Your task to perform on an android device: Open Google Image 0: 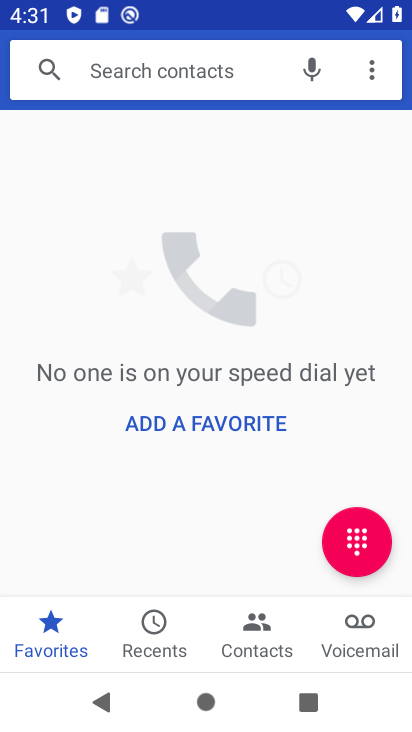
Step 0: press home button
Your task to perform on an android device: Open Google Image 1: 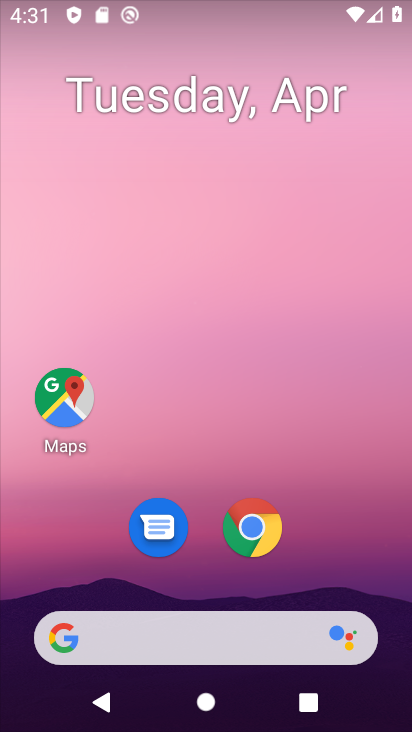
Step 1: drag from (211, 586) to (218, 131)
Your task to perform on an android device: Open Google Image 2: 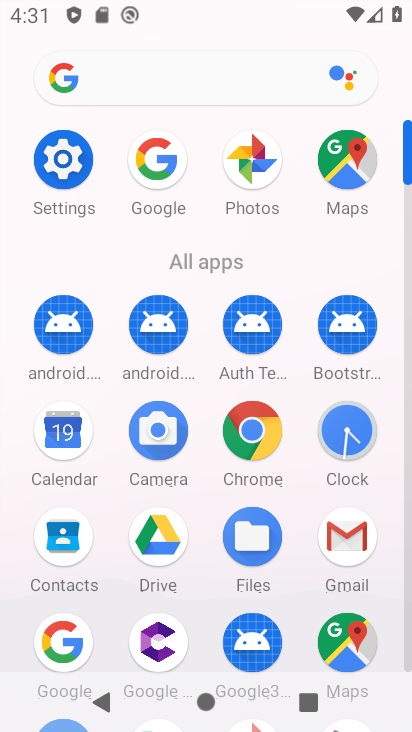
Step 2: click (151, 164)
Your task to perform on an android device: Open Google Image 3: 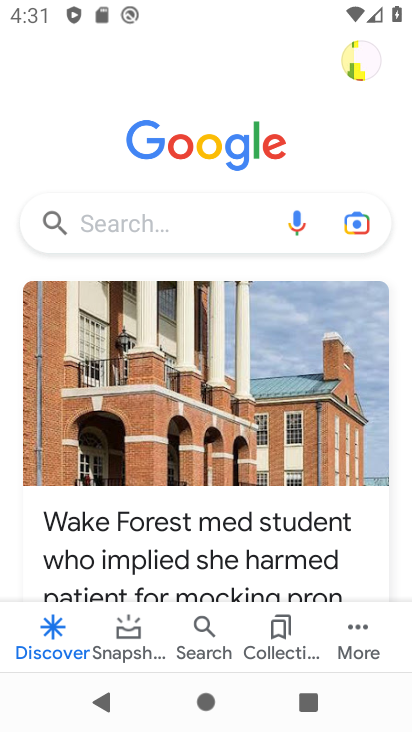
Step 3: task complete